Your task to perform on an android device: Search for Italian restaurants on Maps Image 0: 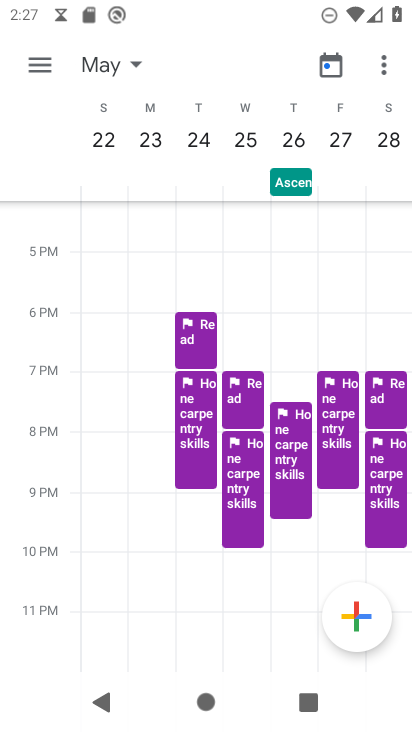
Step 0: press home button
Your task to perform on an android device: Search for Italian restaurants on Maps Image 1: 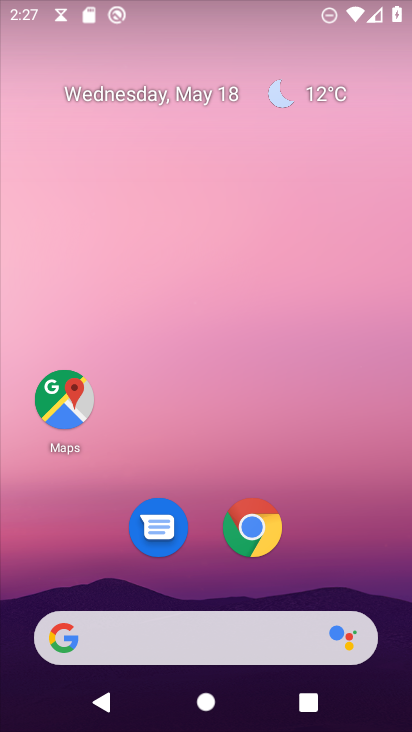
Step 1: click (68, 405)
Your task to perform on an android device: Search for Italian restaurants on Maps Image 2: 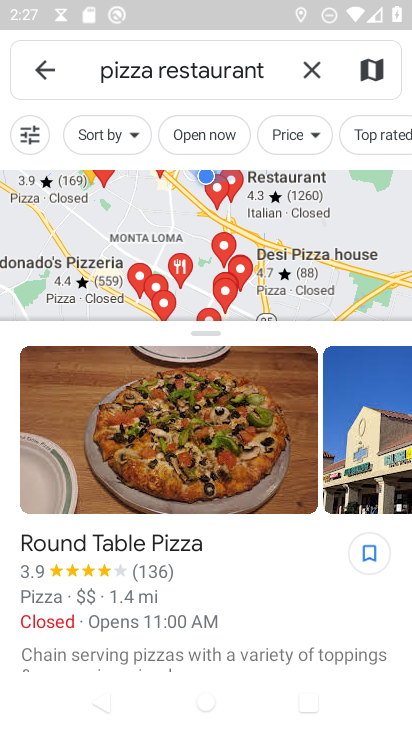
Step 2: click (307, 65)
Your task to perform on an android device: Search for Italian restaurants on Maps Image 3: 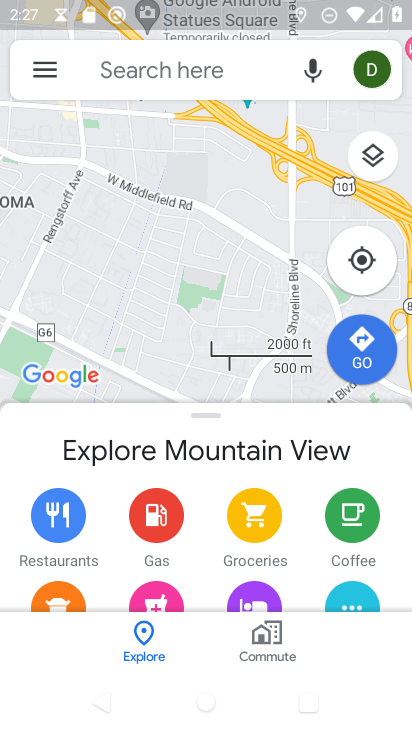
Step 3: click (174, 70)
Your task to perform on an android device: Search for Italian restaurants on Maps Image 4: 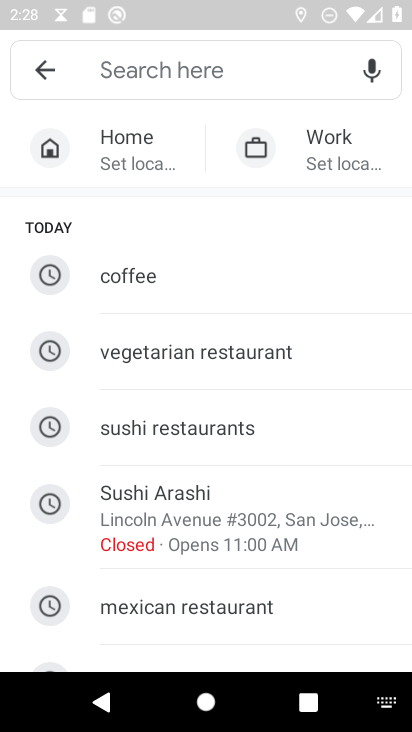
Step 4: drag from (245, 554) to (241, 260)
Your task to perform on an android device: Search for Italian restaurants on Maps Image 5: 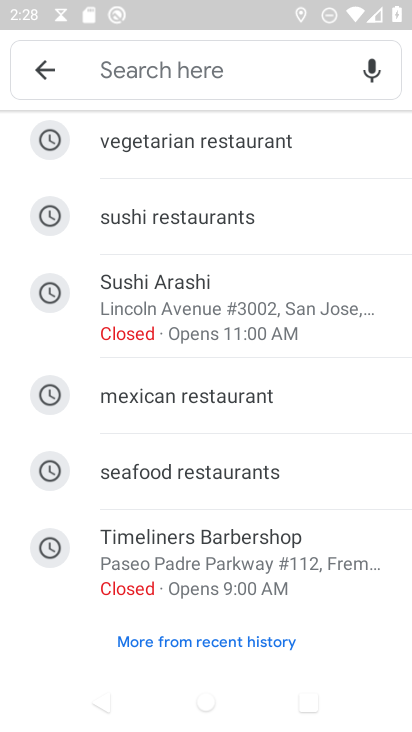
Step 5: click (154, 76)
Your task to perform on an android device: Search for Italian restaurants on Maps Image 6: 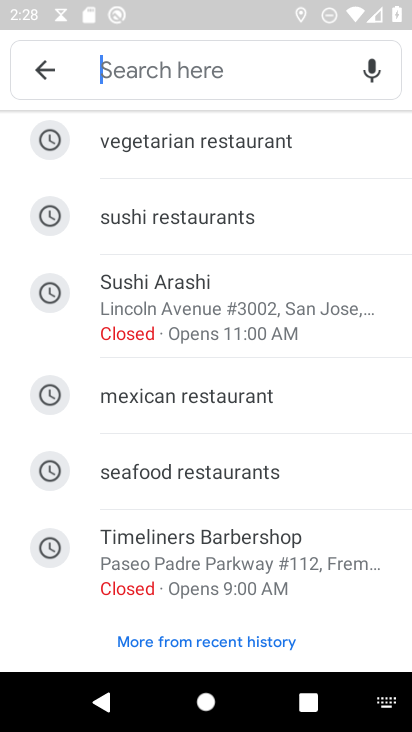
Step 6: type "Italian restaurants"
Your task to perform on an android device: Search for Italian restaurants on Maps Image 7: 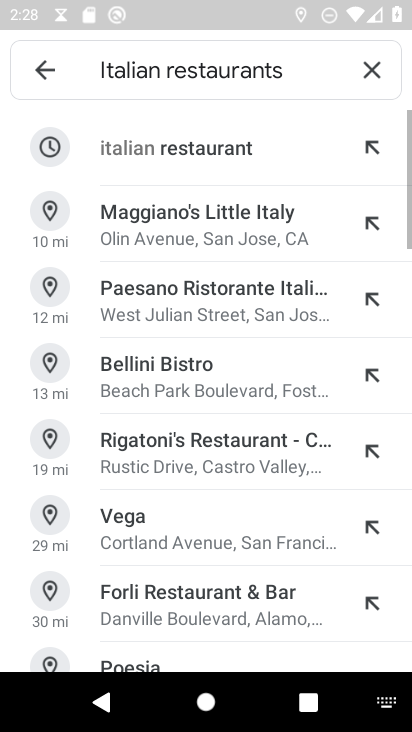
Step 7: click (212, 125)
Your task to perform on an android device: Search for Italian restaurants on Maps Image 8: 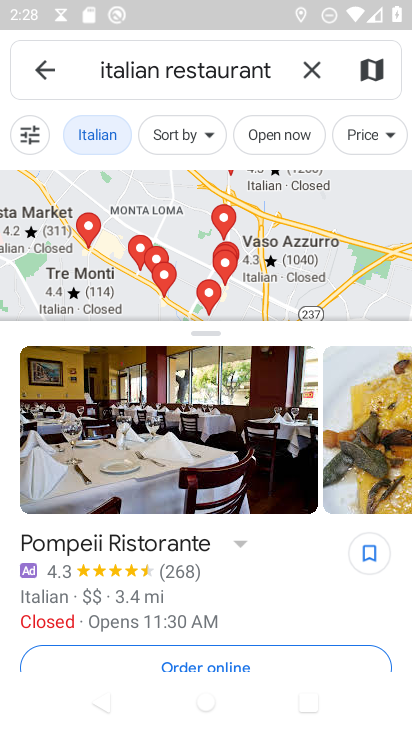
Step 8: task complete